Your task to perform on an android device: Open battery settings Image 0: 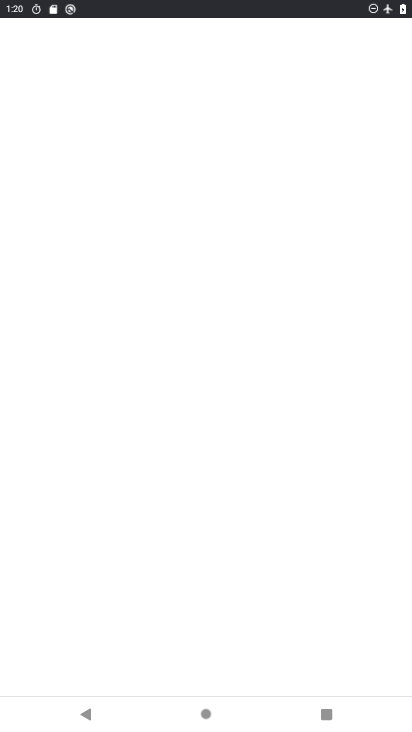
Step 0: drag from (237, 706) to (279, 266)
Your task to perform on an android device: Open battery settings Image 1: 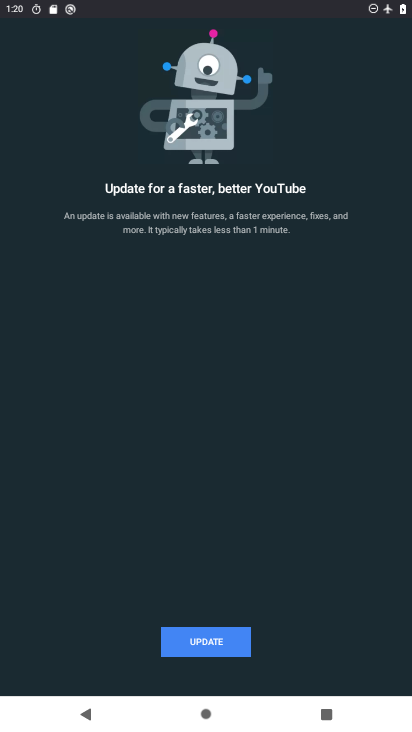
Step 1: press home button
Your task to perform on an android device: Open battery settings Image 2: 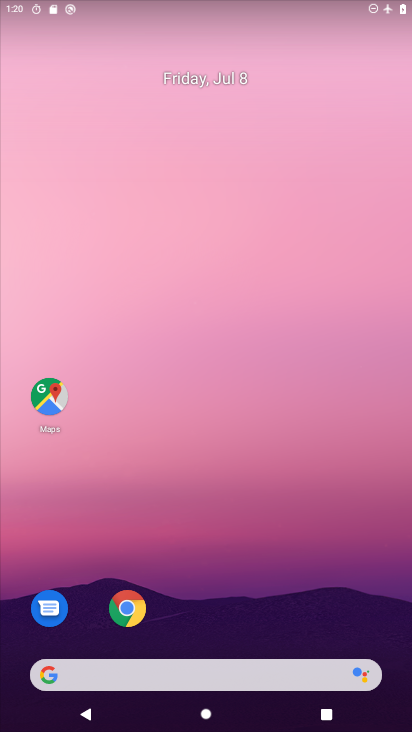
Step 2: drag from (252, 714) to (246, 97)
Your task to perform on an android device: Open battery settings Image 3: 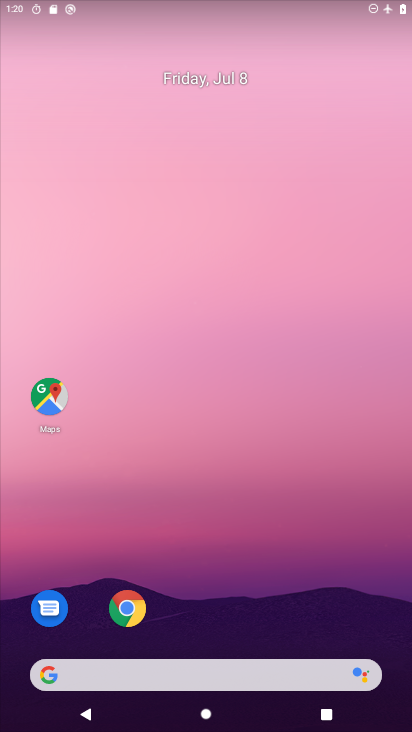
Step 3: drag from (262, 721) to (251, 55)
Your task to perform on an android device: Open battery settings Image 4: 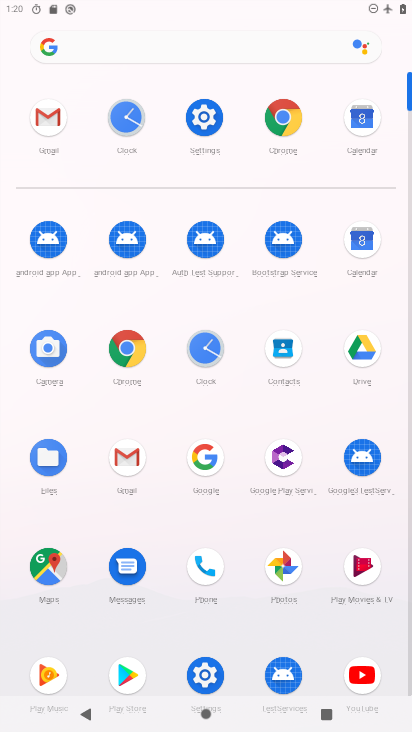
Step 4: click (203, 117)
Your task to perform on an android device: Open battery settings Image 5: 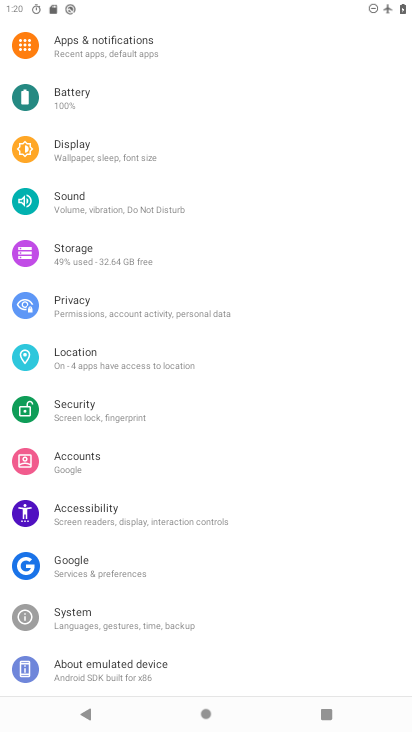
Step 5: click (60, 98)
Your task to perform on an android device: Open battery settings Image 6: 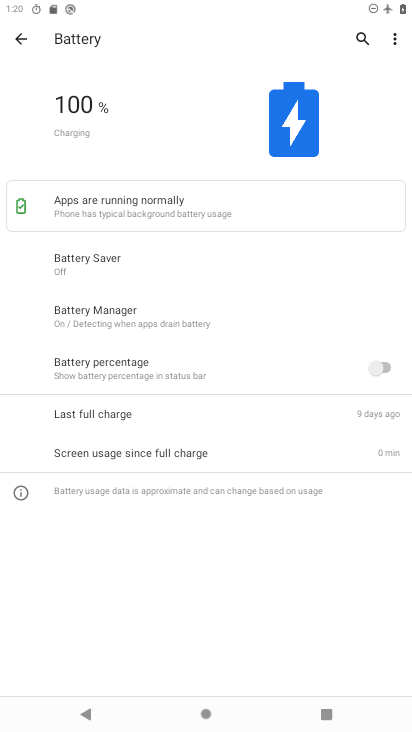
Step 6: task complete